Your task to perform on an android device: Open Google Chrome and click the shortcut for Amazon.com Image 0: 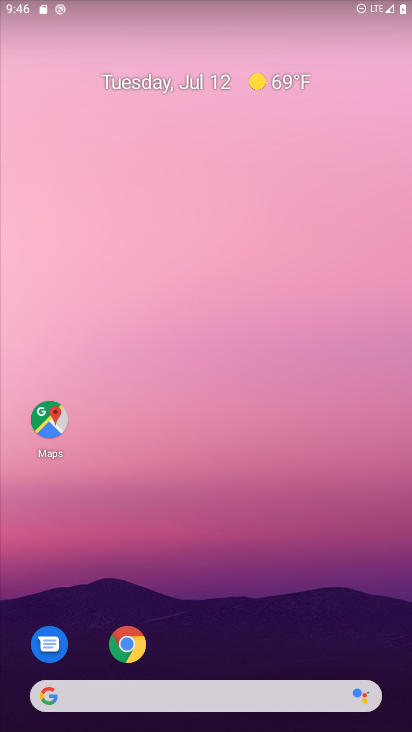
Step 0: press home button
Your task to perform on an android device: Open Google Chrome and click the shortcut for Amazon.com Image 1: 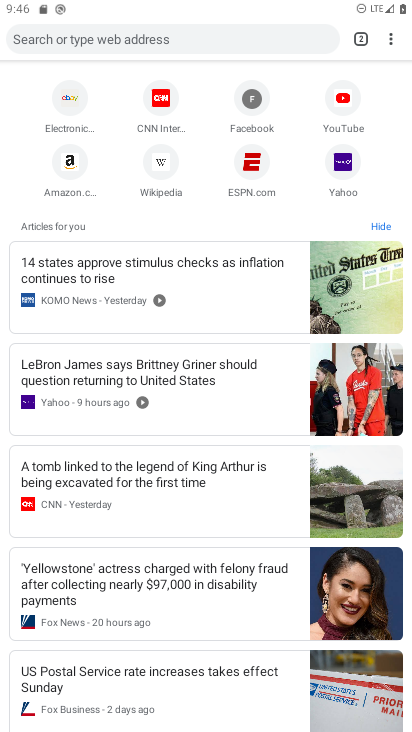
Step 1: drag from (230, 233) to (241, 26)
Your task to perform on an android device: Open Google Chrome and click the shortcut for Amazon.com Image 2: 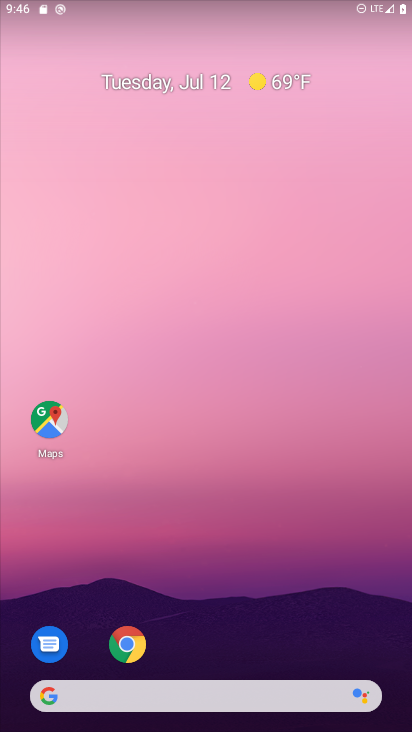
Step 2: click (126, 642)
Your task to perform on an android device: Open Google Chrome and click the shortcut for Amazon.com Image 3: 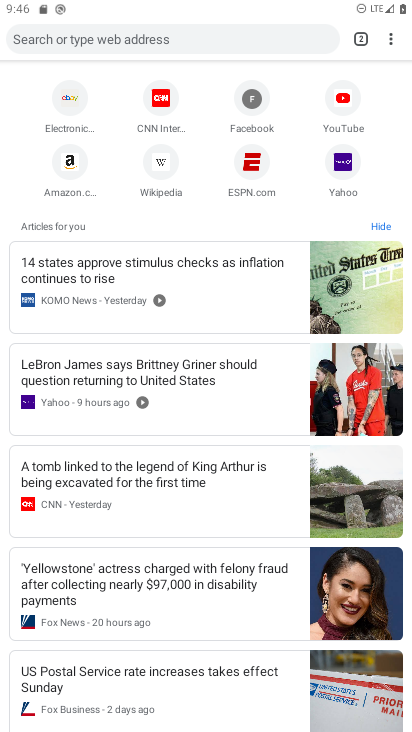
Step 3: click (116, 36)
Your task to perform on an android device: Open Google Chrome and click the shortcut for Amazon.com Image 4: 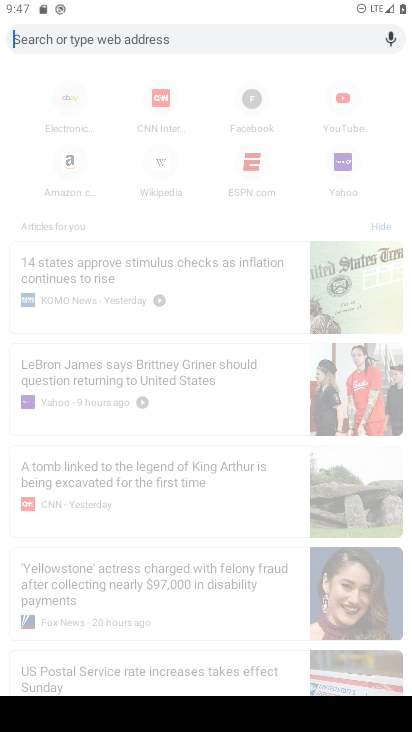
Step 4: click (178, 182)
Your task to perform on an android device: Open Google Chrome and click the shortcut for Amazon.com Image 5: 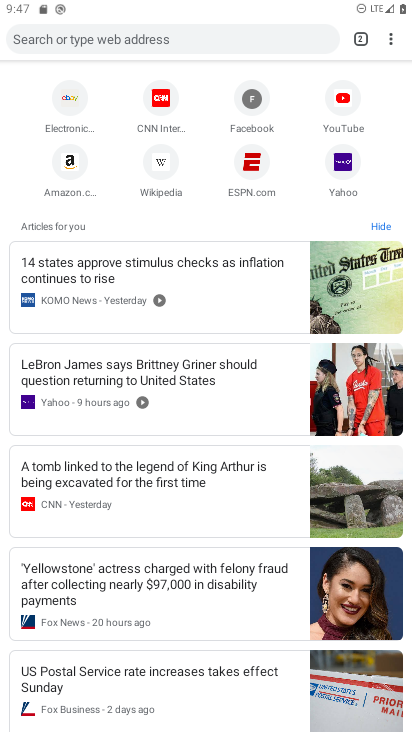
Step 5: click (71, 152)
Your task to perform on an android device: Open Google Chrome and click the shortcut for Amazon.com Image 6: 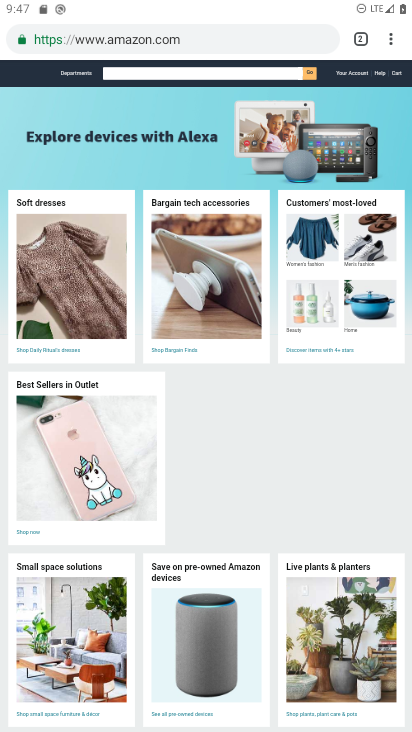
Step 6: task complete